Your task to perform on an android device: Open settings on Google Maps Image 0: 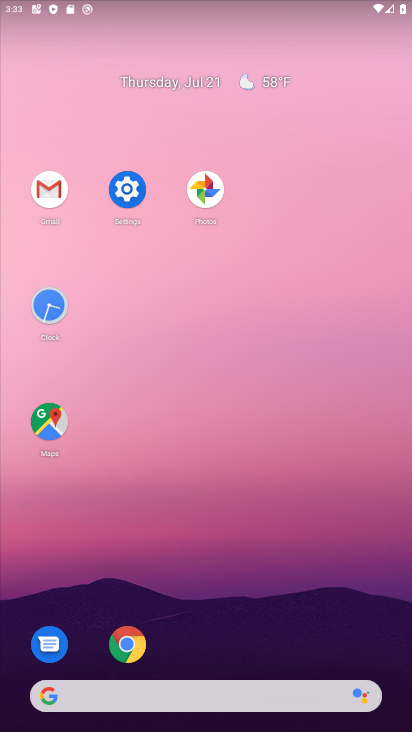
Step 0: click (57, 425)
Your task to perform on an android device: Open settings on Google Maps Image 1: 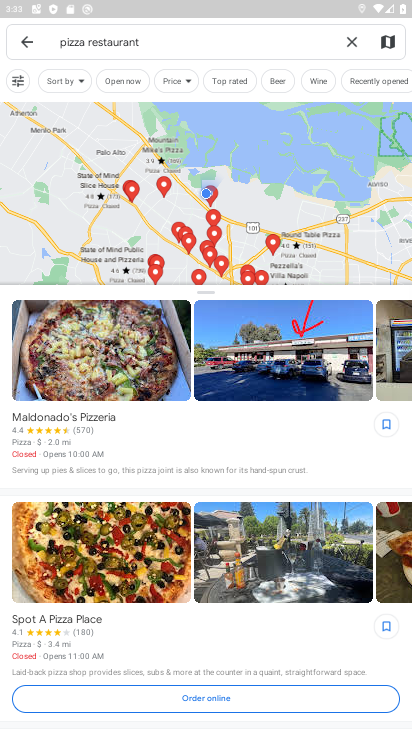
Step 1: click (31, 40)
Your task to perform on an android device: Open settings on Google Maps Image 2: 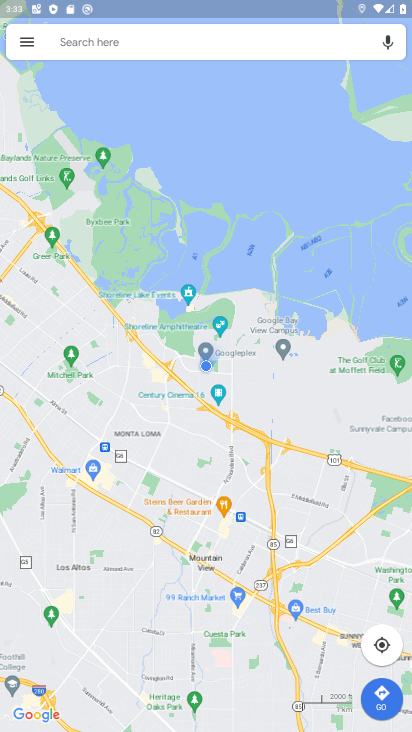
Step 2: click (30, 39)
Your task to perform on an android device: Open settings on Google Maps Image 3: 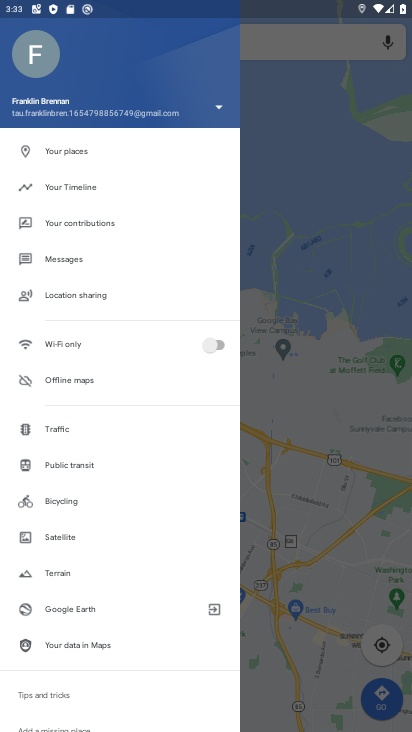
Step 3: drag from (143, 622) to (165, 278)
Your task to perform on an android device: Open settings on Google Maps Image 4: 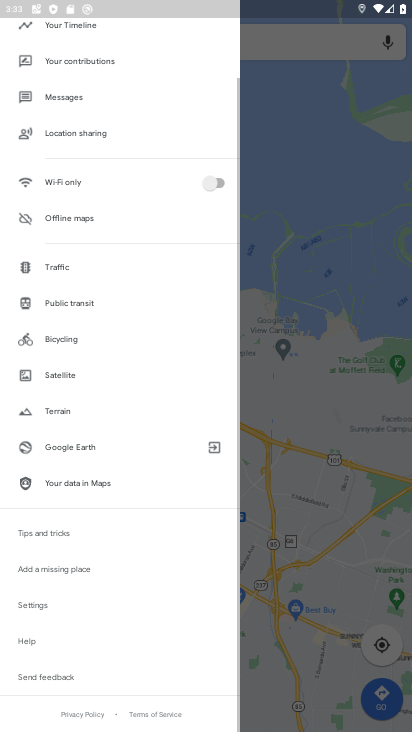
Step 4: click (50, 610)
Your task to perform on an android device: Open settings on Google Maps Image 5: 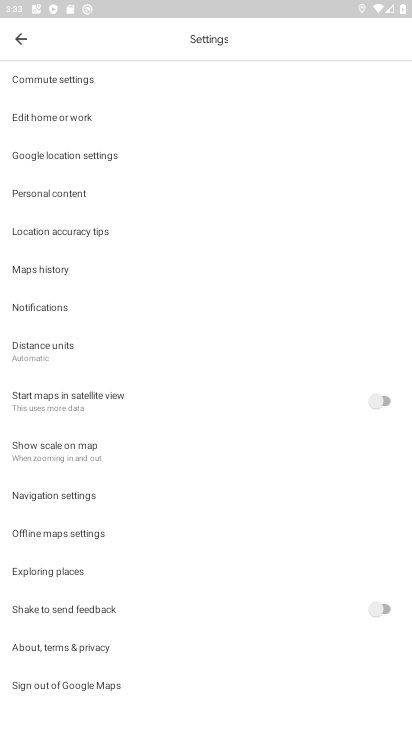
Step 5: task complete